Your task to perform on an android device: star an email in the gmail app Image 0: 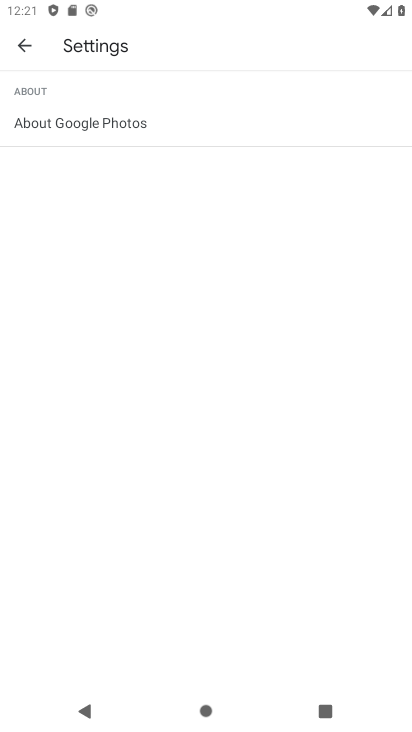
Step 0: task complete